Your task to perform on an android device: toggle pop-ups in chrome Image 0: 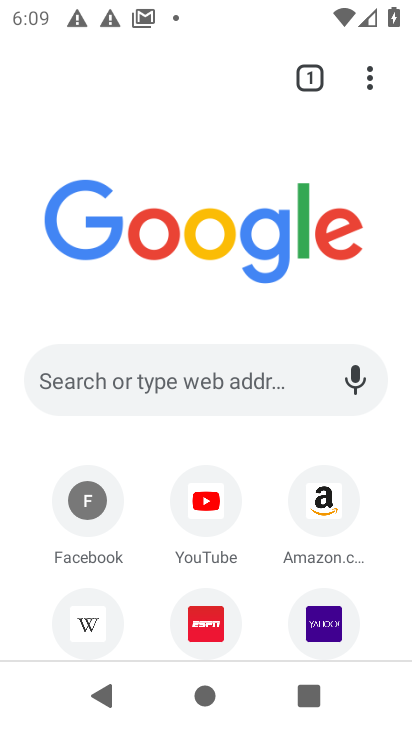
Step 0: drag from (365, 70) to (109, 547)
Your task to perform on an android device: toggle pop-ups in chrome Image 1: 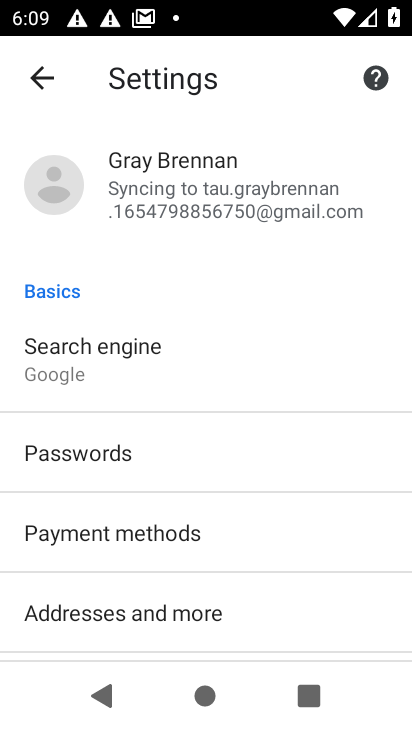
Step 1: drag from (196, 598) to (264, 169)
Your task to perform on an android device: toggle pop-ups in chrome Image 2: 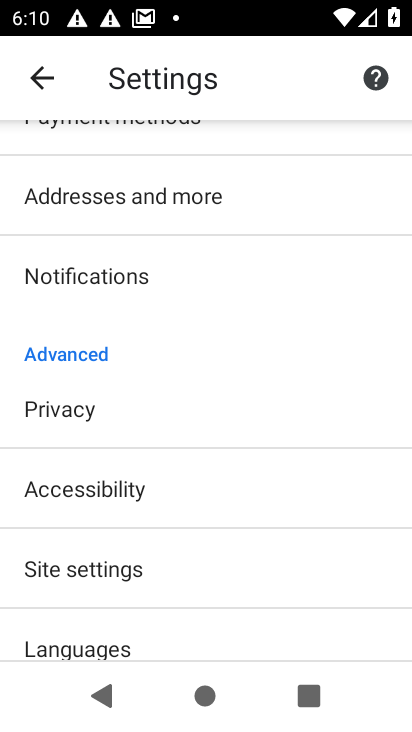
Step 2: click (63, 556)
Your task to perform on an android device: toggle pop-ups in chrome Image 3: 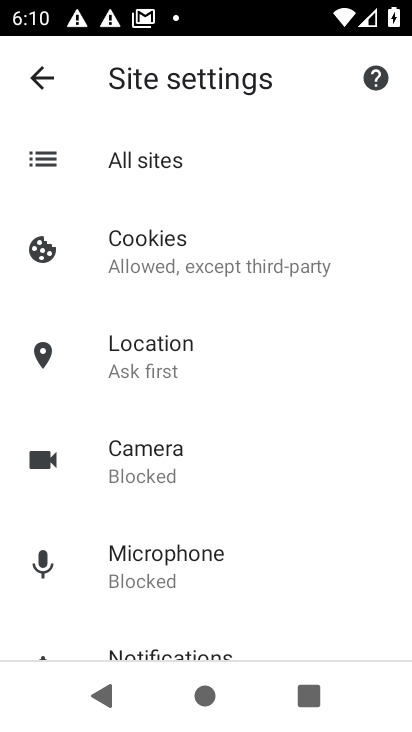
Step 3: drag from (232, 566) to (389, 12)
Your task to perform on an android device: toggle pop-ups in chrome Image 4: 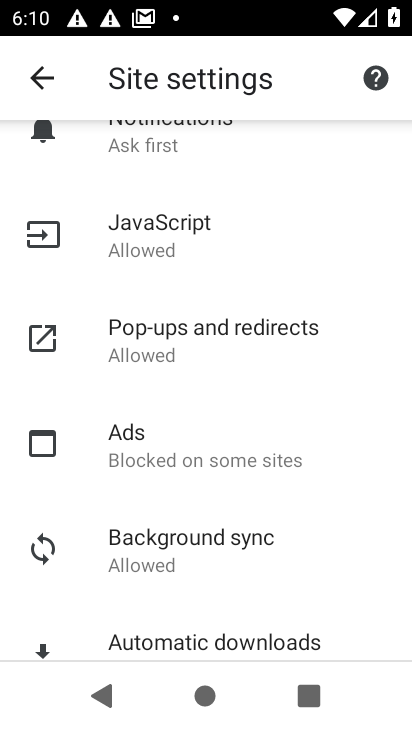
Step 4: click (180, 333)
Your task to perform on an android device: toggle pop-ups in chrome Image 5: 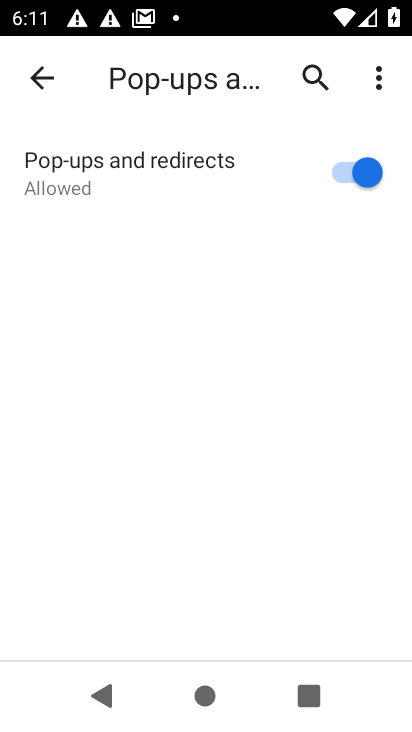
Step 5: click (382, 182)
Your task to perform on an android device: toggle pop-ups in chrome Image 6: 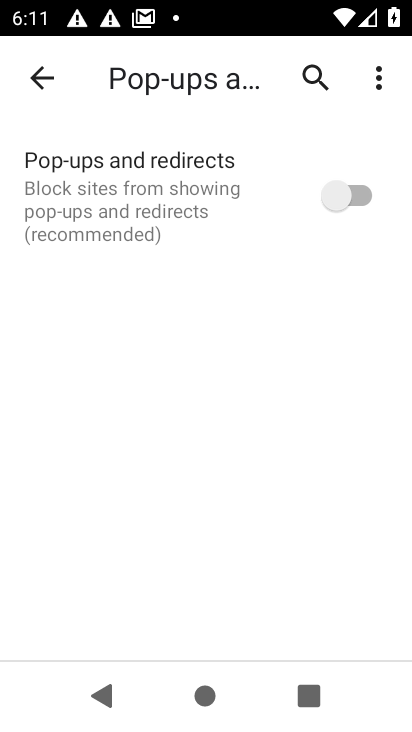
Step 6: task complete